Your task to perform on an android device: change timer sound Image 0: 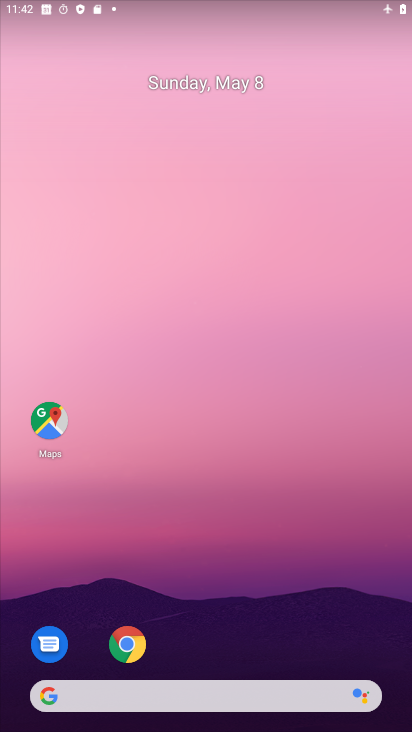
Step 0: drag from (198, 673) to (195, 375)
Your task to perform on an android device: change timer sound Image 1: 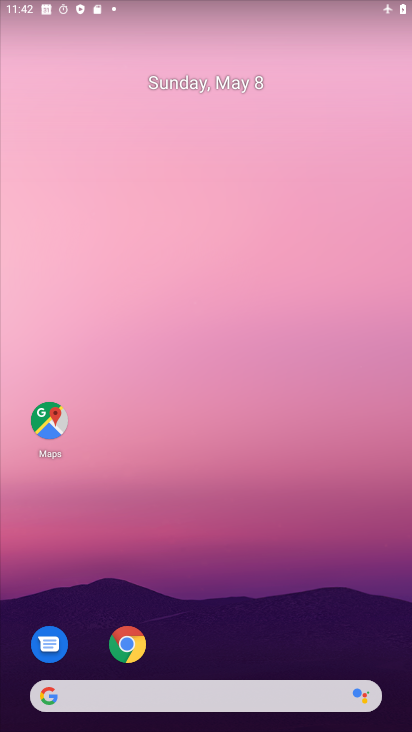
Step 1: drag from (218, 638) to (206, 464)
Your task to perform on an android device: change timer sound Image 2: 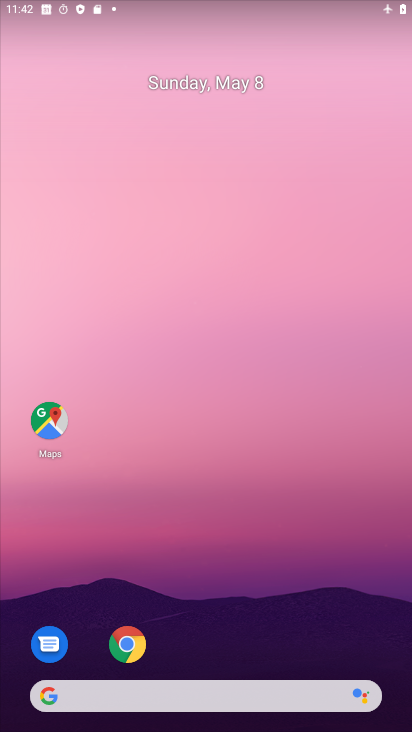
Step 2: drag from (190, 651) to (283, 134)
Your task to perform on an android device: change timer sound Image 3: 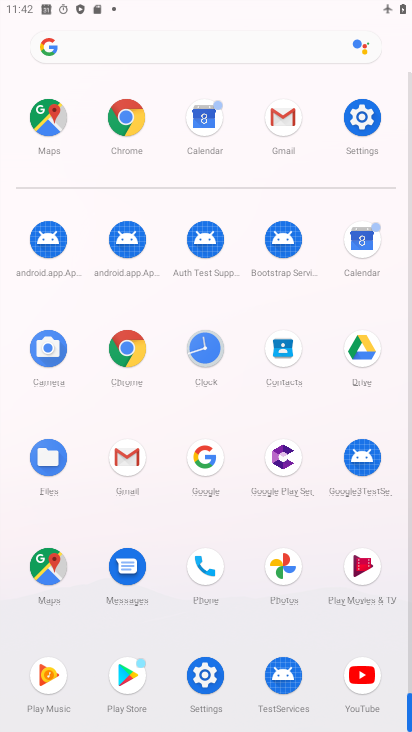
Step 3: click (199, 354)
Your task to perform on an android device: change timer sound Image 4: 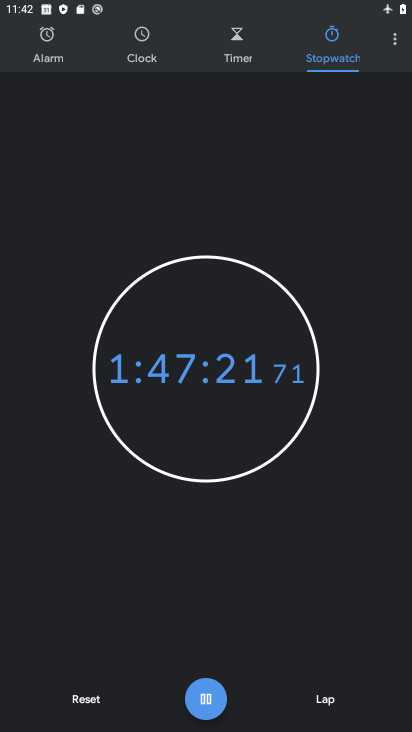
Step 4: click (86, 707)
Your task to perform on an android device: change timer sound Image 5: 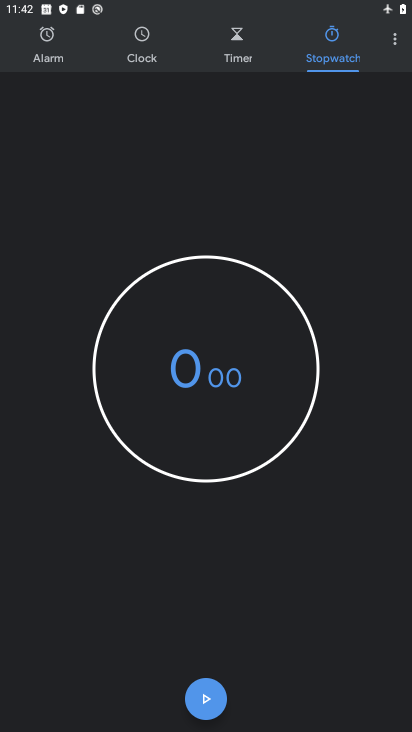
Step 5: click (404, 40)
Your task to perform on an android device: change timer sound Image 6: 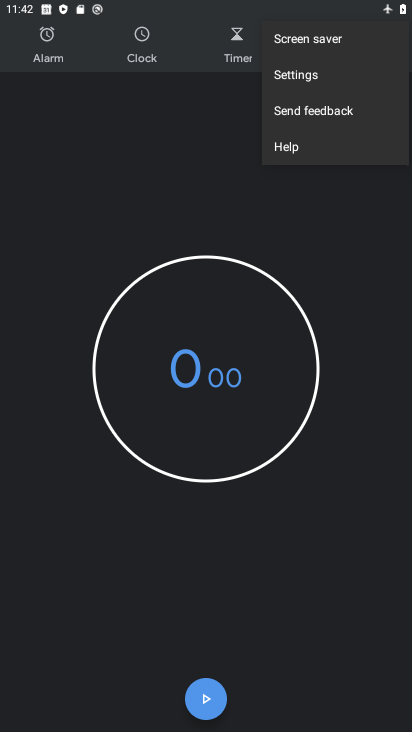
Step 6: click (300, 77)
Your task to perform on an android device: change timer sound Image 7: 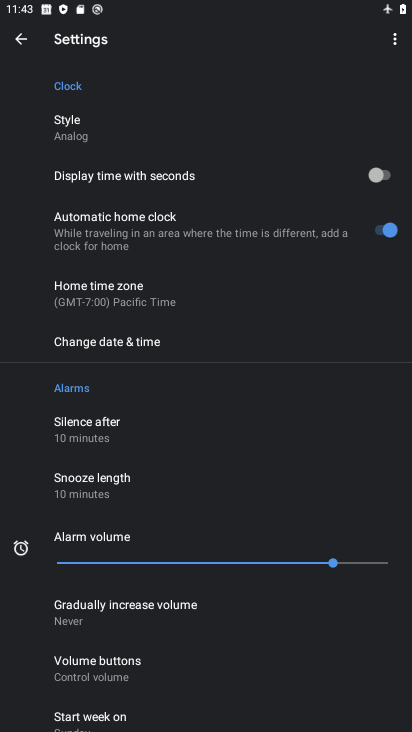
Step 7: drag from (155, 629) to (187, 194)
Your task to perform on an android device: change timer sound Image 8: 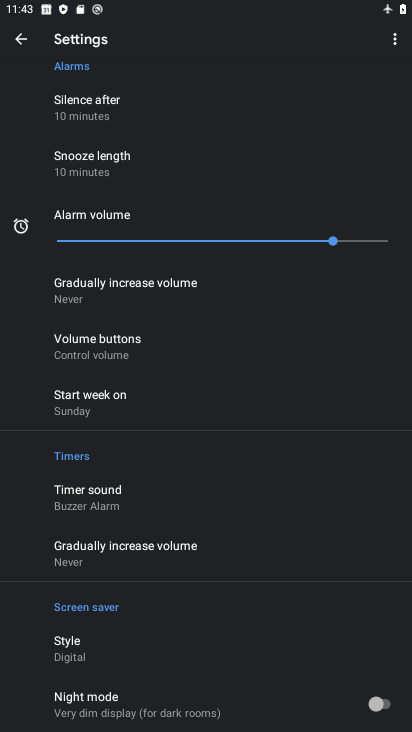
Step 8: click (129, 488)
Your task to perform on an android device: change timer sound Image 9: 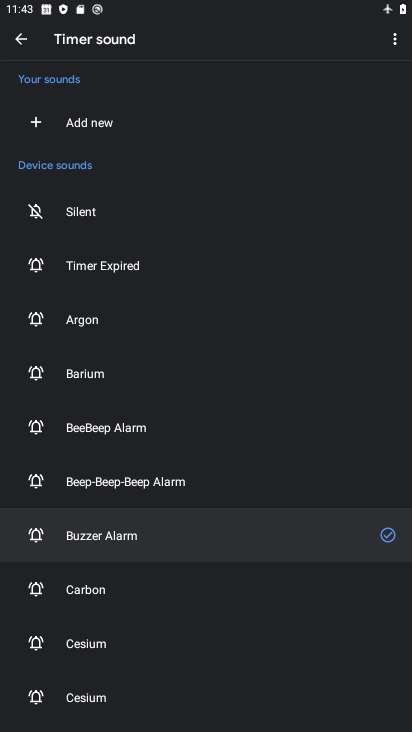
Step 9: click (168, 431)
Your task to perform on an android device: change timer sound Image 10: 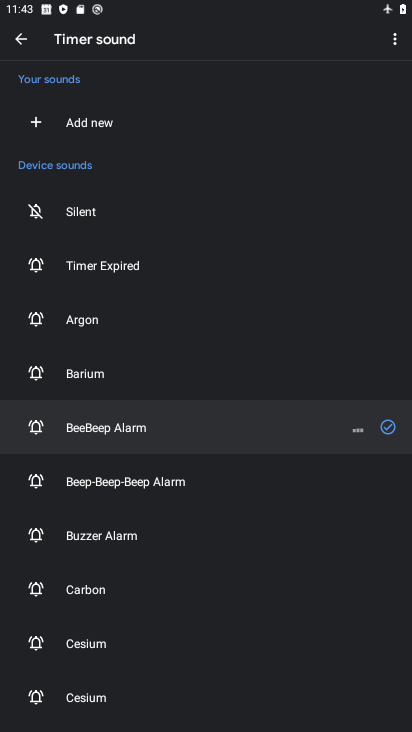
Step 10: task complete